Your task to perform on an android device: stop showing notifications on the lock screen Image 0: 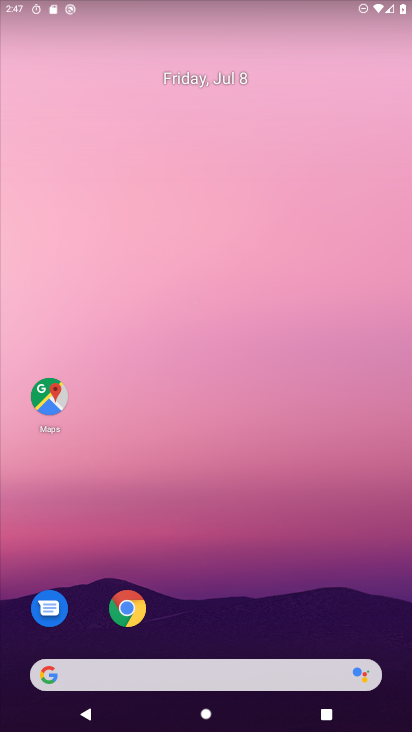
Step 0: drag from (239, 726) to (265, 52)
Your task to perform on an android device: stop showing notifications on the lock screen Image 1: 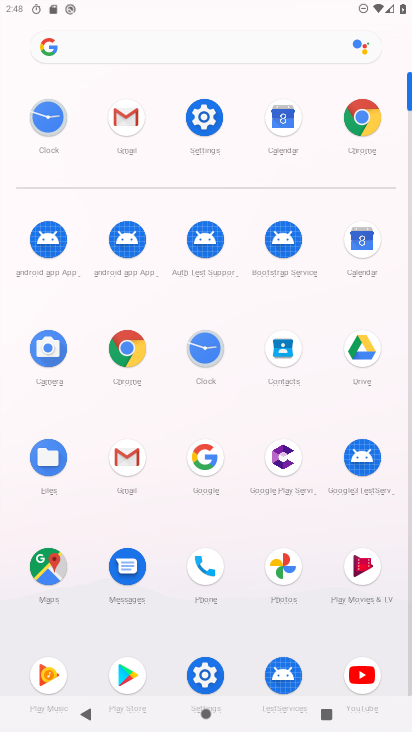
Step 1: click (205, 129)
Your task to perform on an android device: stop showing notifications on the lock screen Image 2: 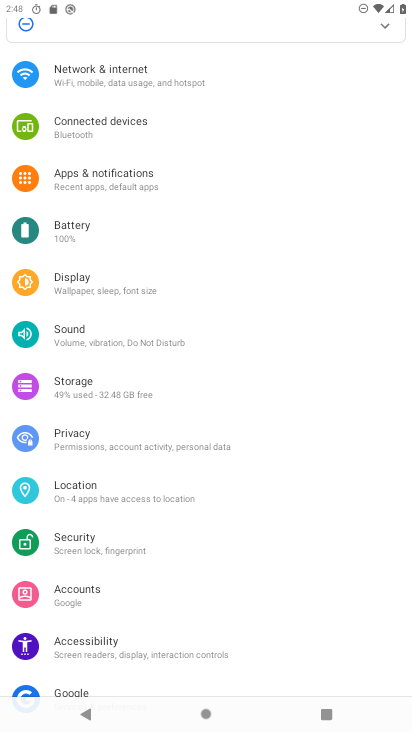
Step 2: click (96, 177)
Your task to perform on an android device: stop showing notifications on the lock screen Image 3: 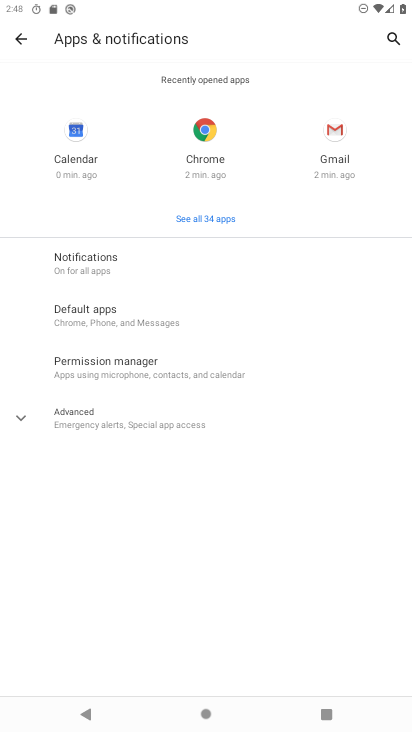
Step 3: click (94, 257)
Your task to perform on an android device: stop showing notifications on the lock screen Image 4: 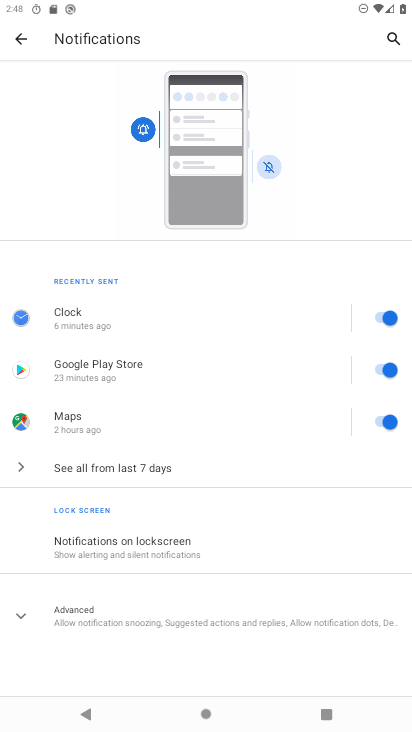
Step 4: click (112, 539)
Your task to perform on an android device: stop showing notifications on the lock screen Image 5: 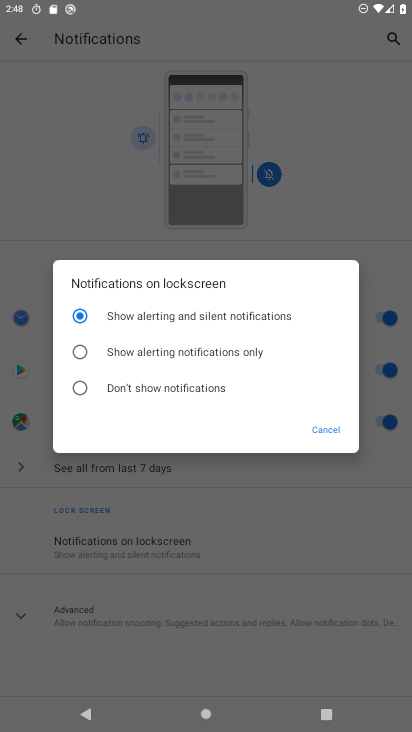
Step 5: click (84, 390)
Your task to perform on an android device: stop showing notifications on the lock screen Image 6: 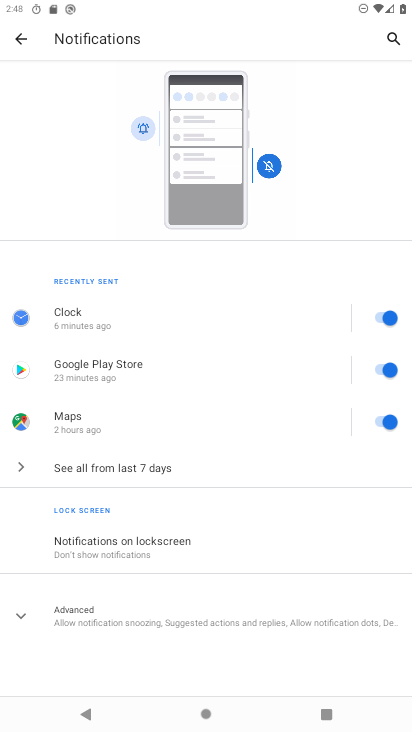
Step 6: task complete